Your task to perform on an android device: see sites visited before in the chrome app Image 0: 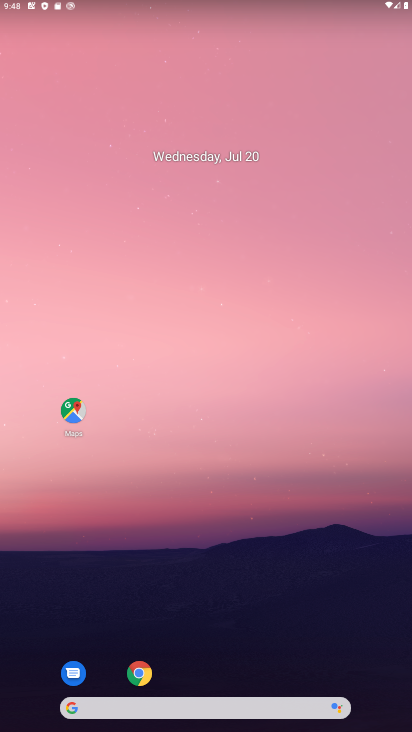
Step 0: click (139, 672)
Your task to perform on an android device: see sites visited before in the chrome app Image 1: 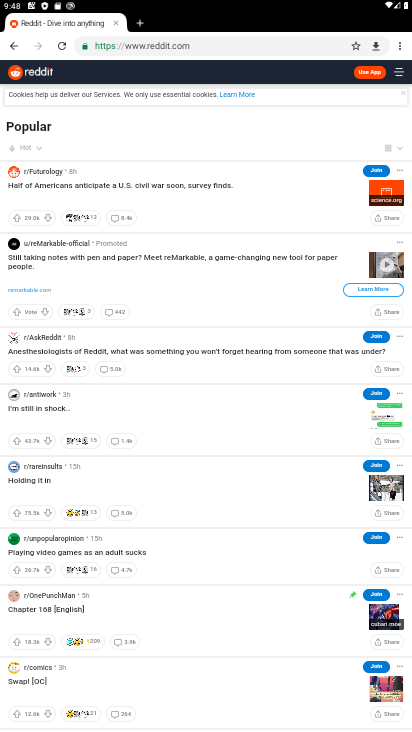
Step 1: click (400, 47)
Your task to perform on an android device: see sites visited before in the chrome app Image 2: 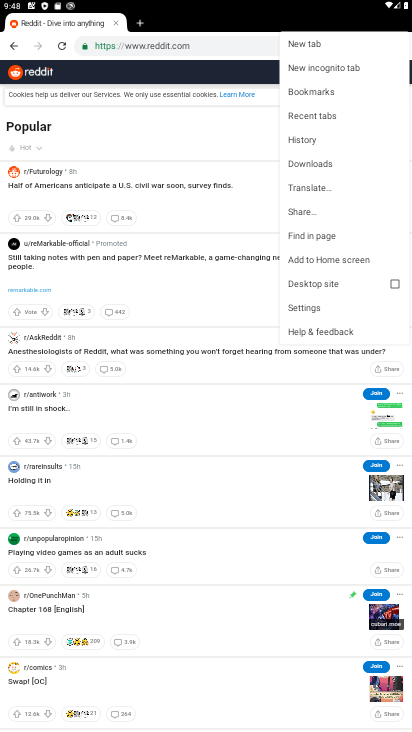
Step 2: click (305, 138)
Your task to perform on an android device: see sites visited before in the chrome app Image 3: 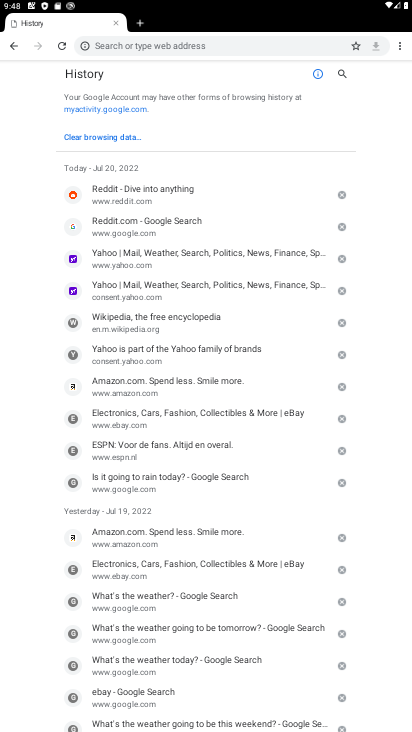
Step 3: task complete